Your task to perform on an android device: Go to eBay Image 0: 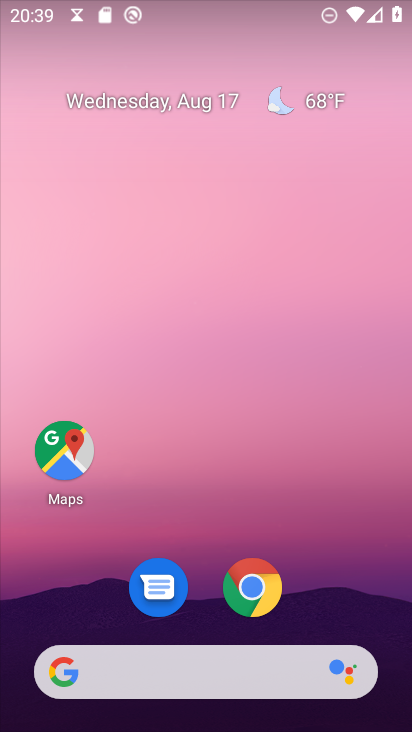
Step 0: click (141, 683)
Your task to perform on an android device: Go to eBay Image 1: 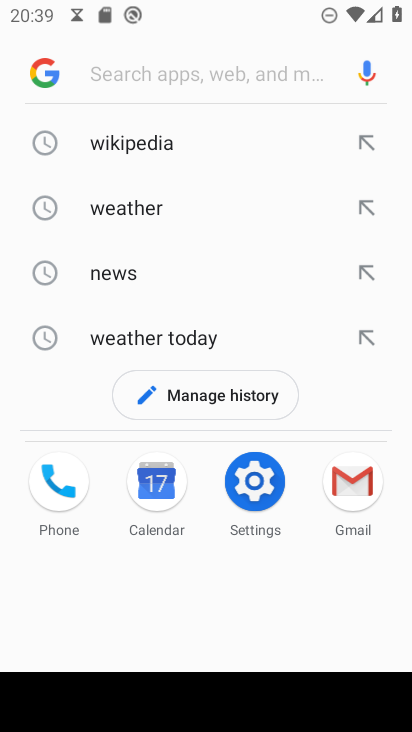
Step 1: type "eBay"
Your task to perform on an android device: Go to eBay Image 2: 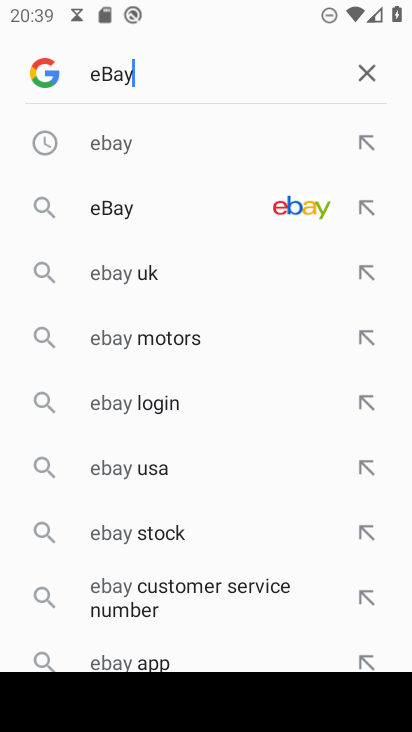
Step 2: click (97, 205)
Your task to perform on an android device: Go to eBay Image 3: 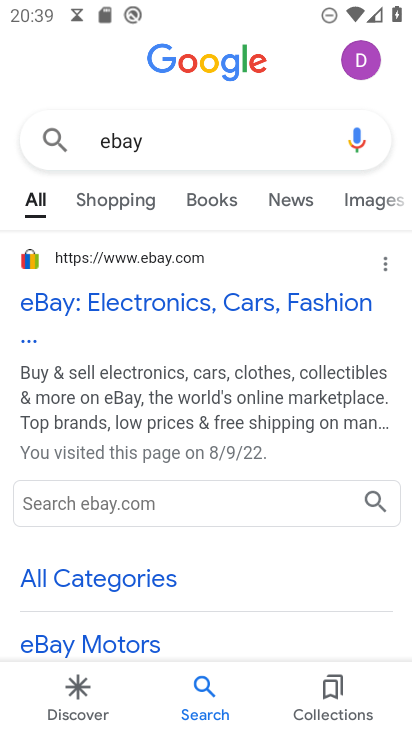
Step 3: task complete